Your task to perform on an android device: Open settings Image 0: 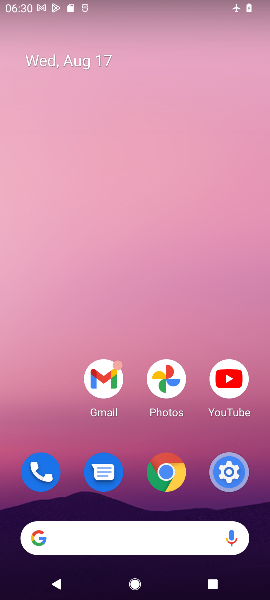
Step 0: click (233, 478)
Your task to perform on an android device: Open settings Image 1: 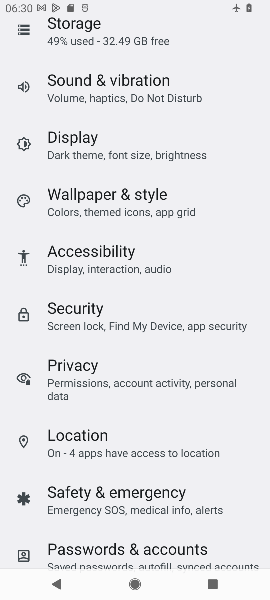
Step 1: task complete